Your task to perform on an android device: Add razer blade to the cart on walmart.com Image 0: 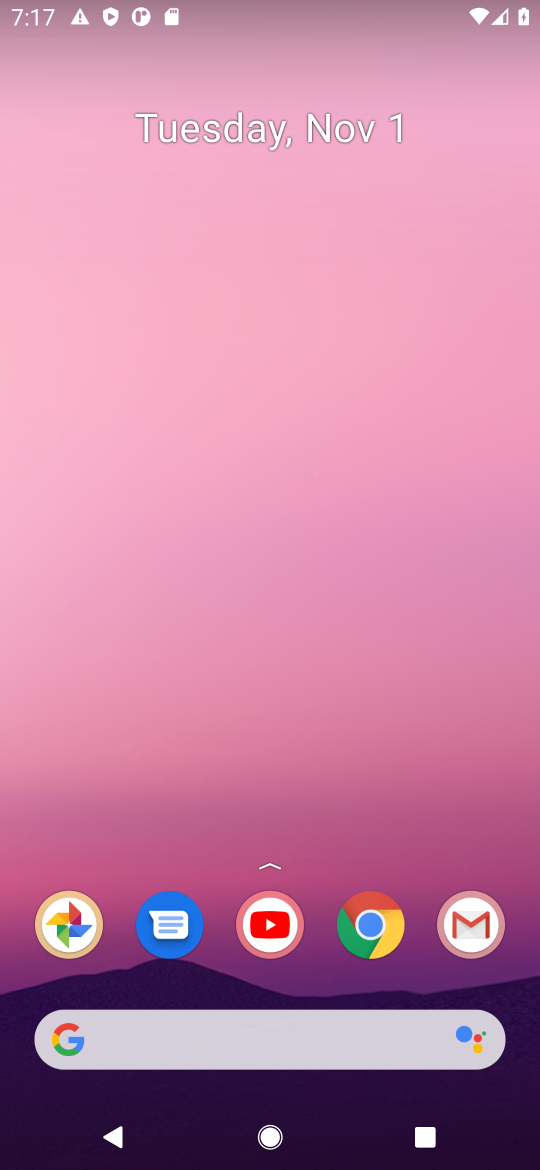
Step 0: press home button
Your task to perform on an android device: Add razer blade to the cart on walmart.com Image 1: 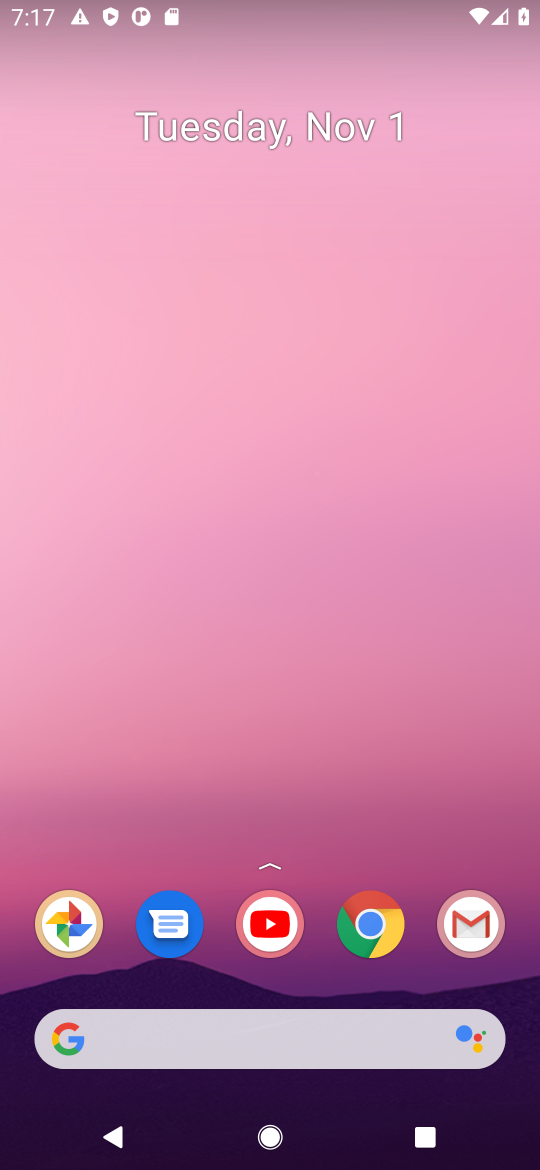
Step 1: click (110, 1028)
Your task to perform on an android device: Add razer blade to the cart on walmart.com Image 2: 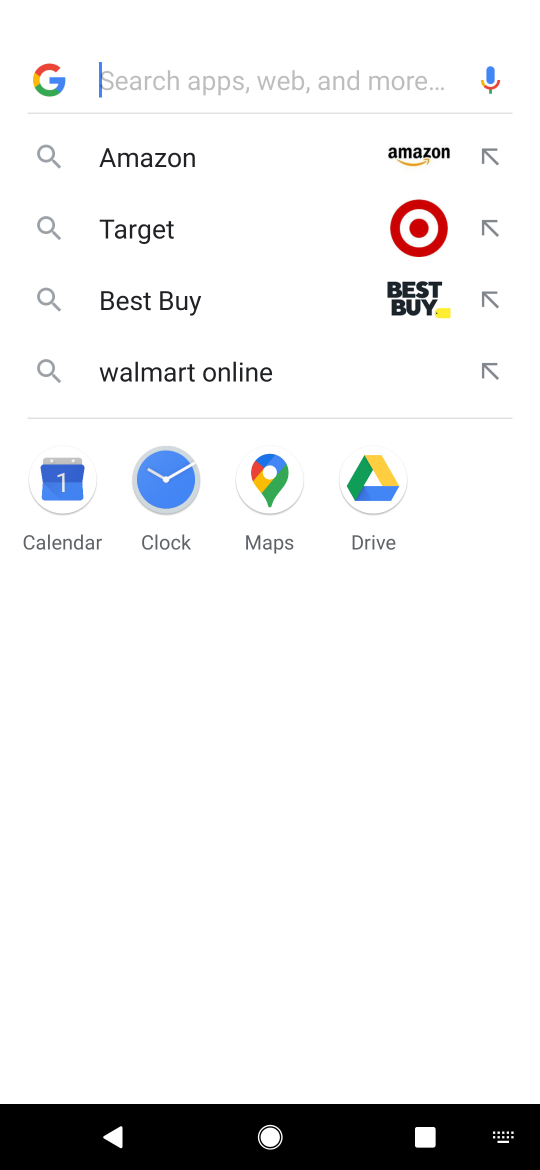
Step 2: click (172, 78)
Your task to perform on an android device: Add razer blade to the cart on walmart.com Image 3: 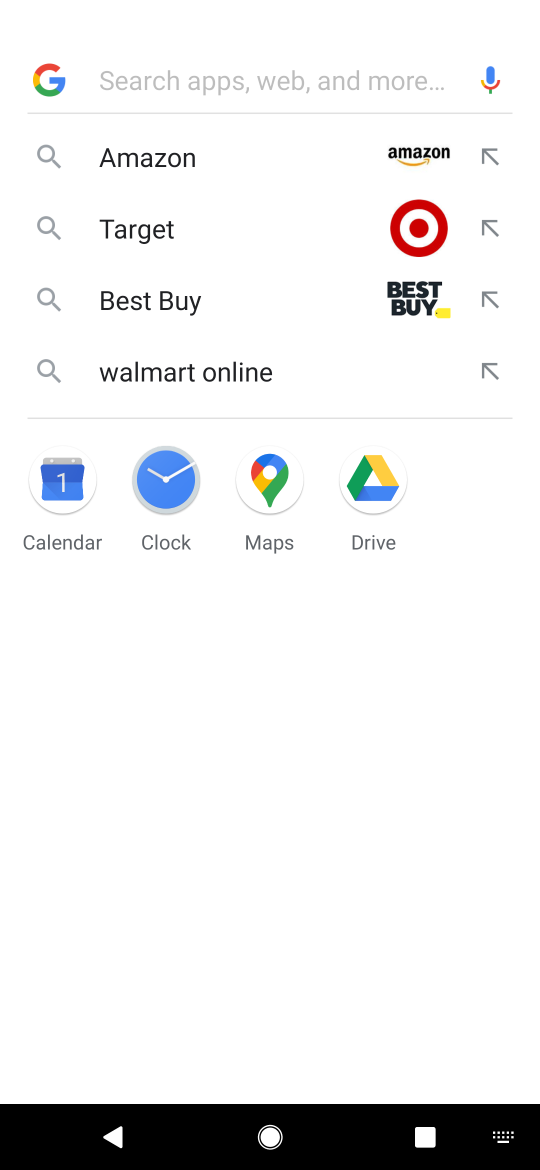
Step 3: press enter
Your task to perform on an android device: Add razer blade to the cart on walmart.com Image 4: 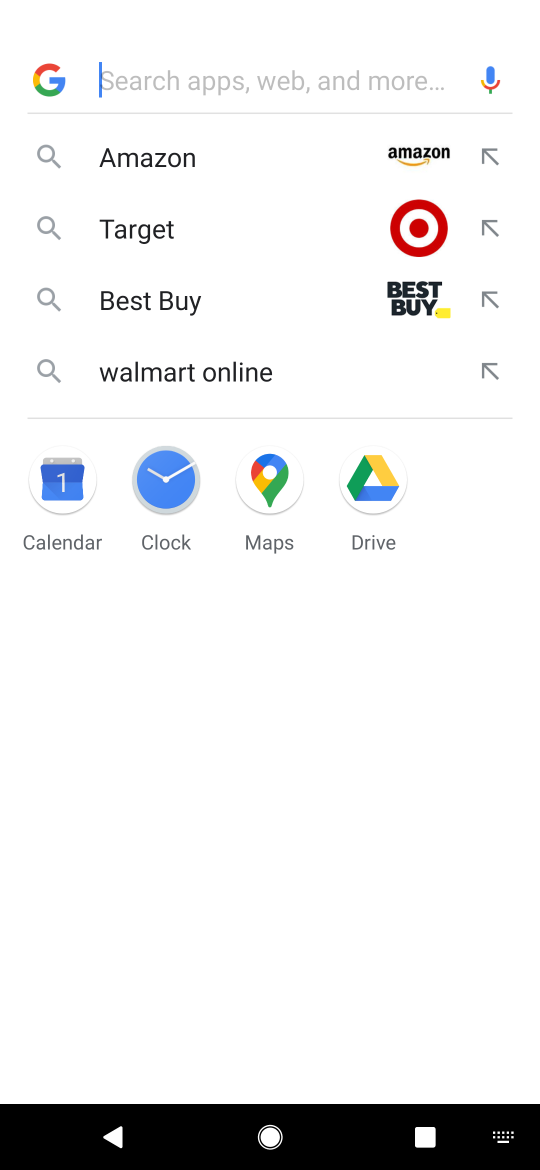
Step 4: type "walmart.com"
Your task to perform on an android device: Add razer blade to the cart on walmart.com Image 5: 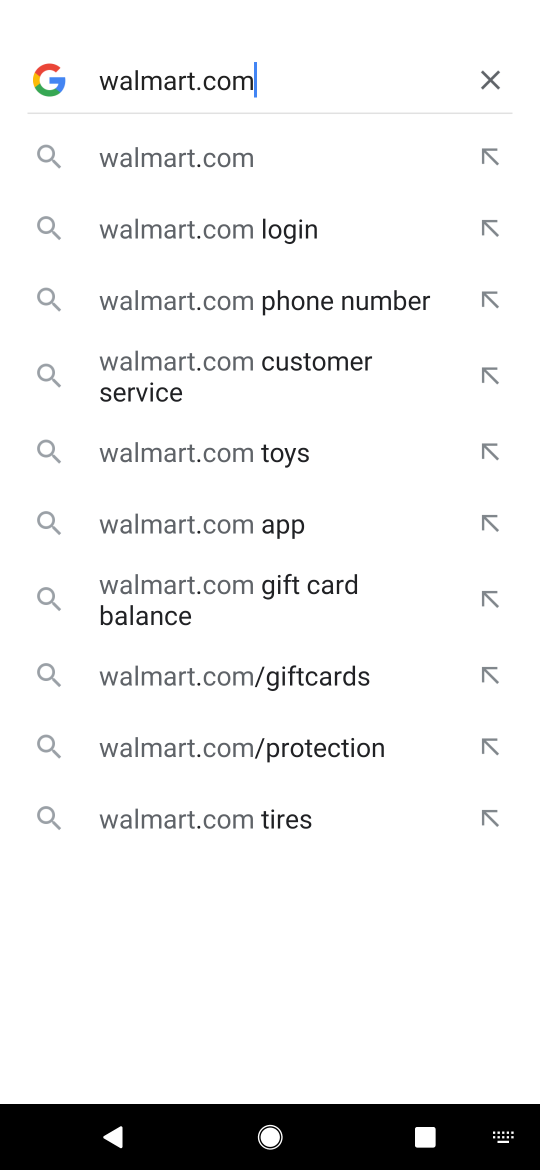
Step 5: press enter
Your task to perform on an android device: Add razer blade to the cart on walmart.com Image 6: 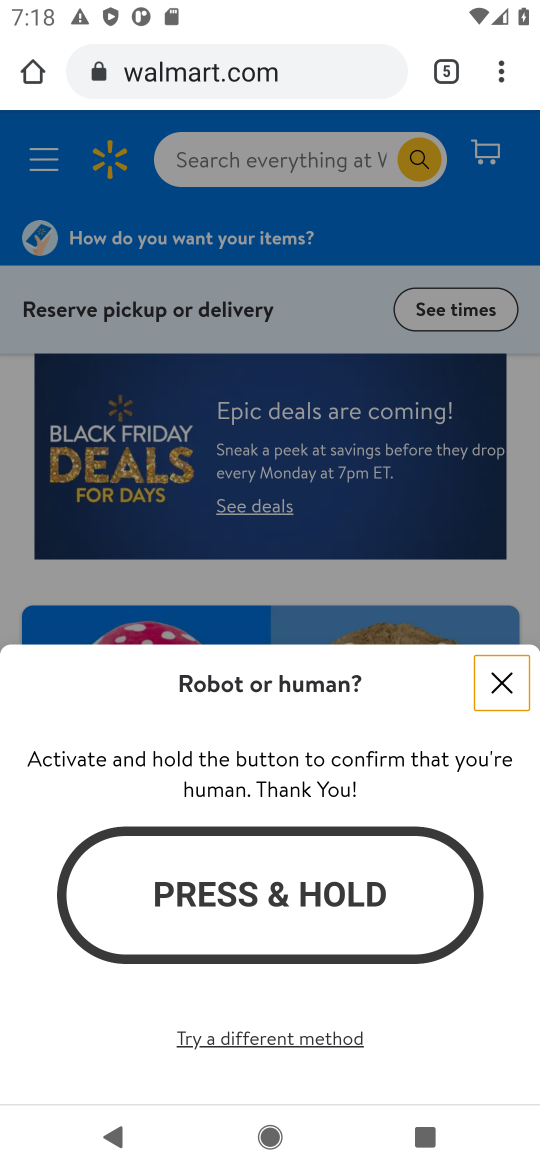
Step 6: click (274, 899)
Your task to perform on an android device: Add razer blade to the cart on walmart.com Image 7: 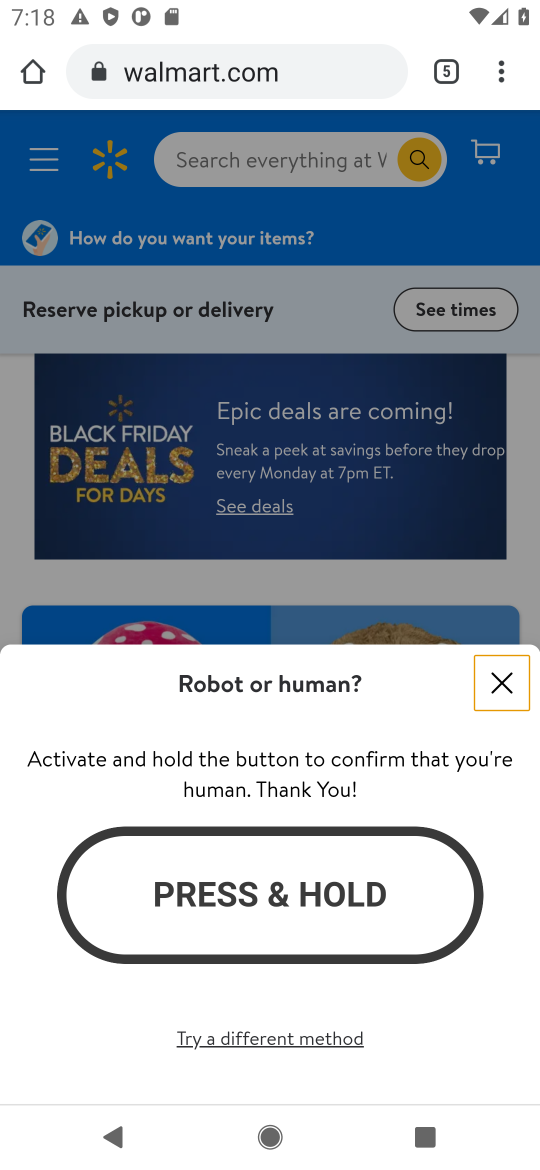
Step 7: click (274, 899)
Your task to perform on an android device: Add razer blade to the cart on walmart.com Image 8: 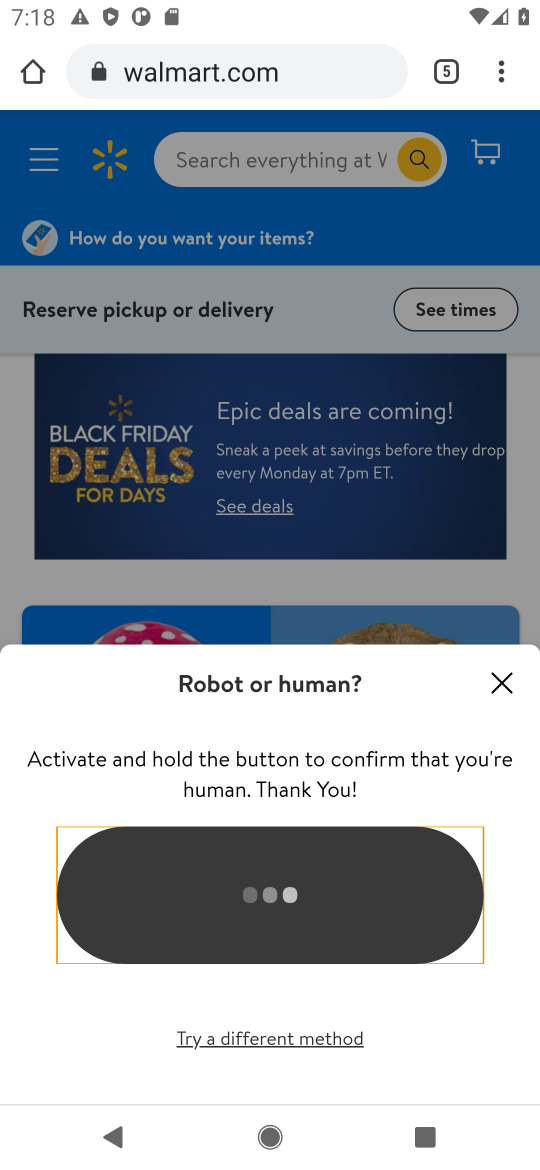
Step 8: click (303, 887)
Your task to perform on an android device: Add razer blade to the cart on walmart.com Image 9: 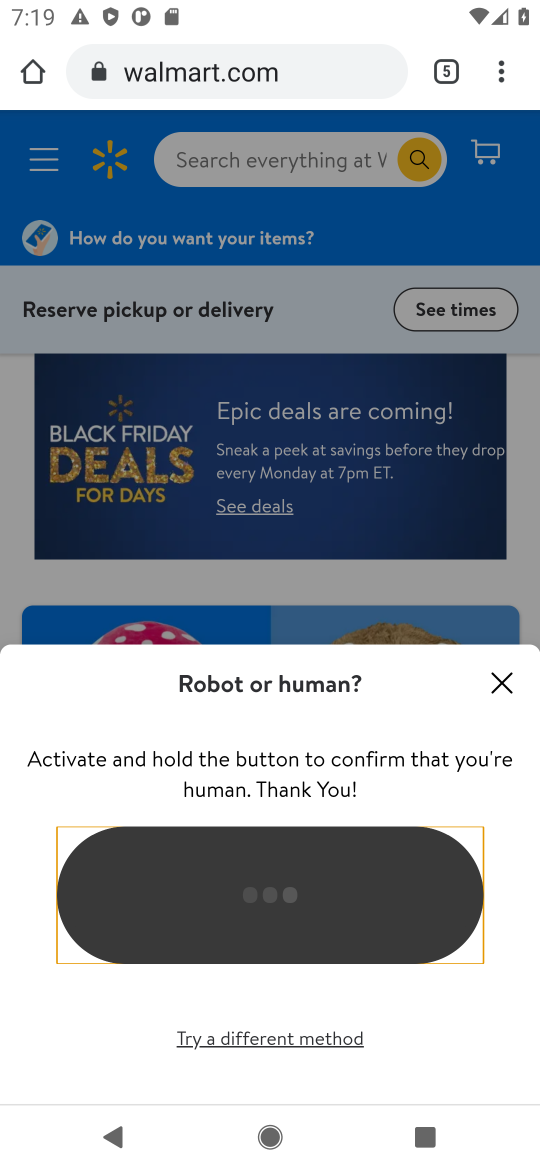
Step 9: click (504, 676)
Your task to perform on an android device: Add razer blade to the cart on walmart.com Image 10: 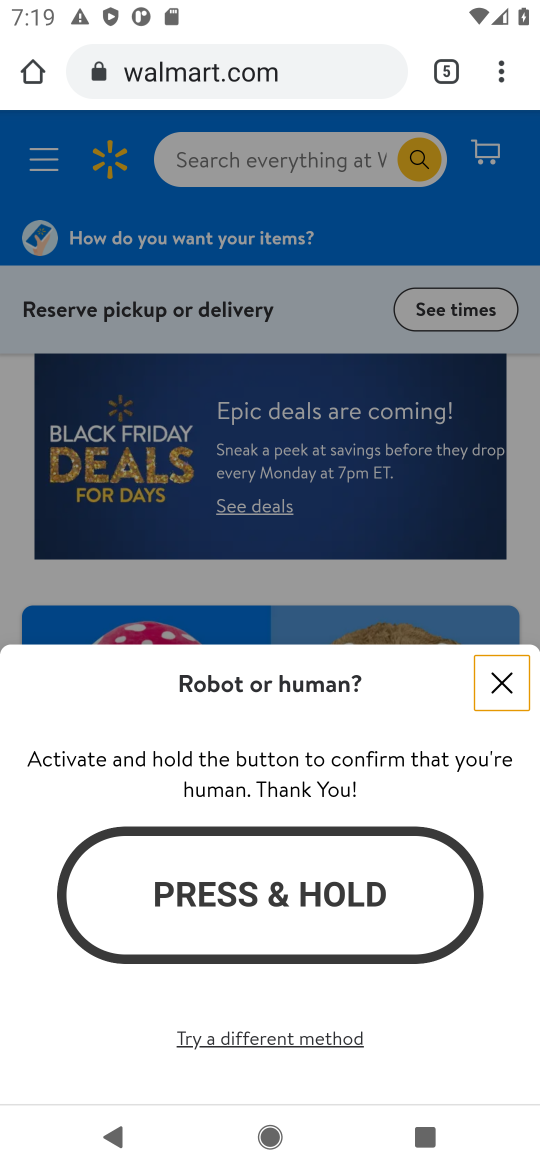
Step 10: click (219, 902)
Your task to perform on an android device: Add razer blade to the cart on walmart.com Image 11: 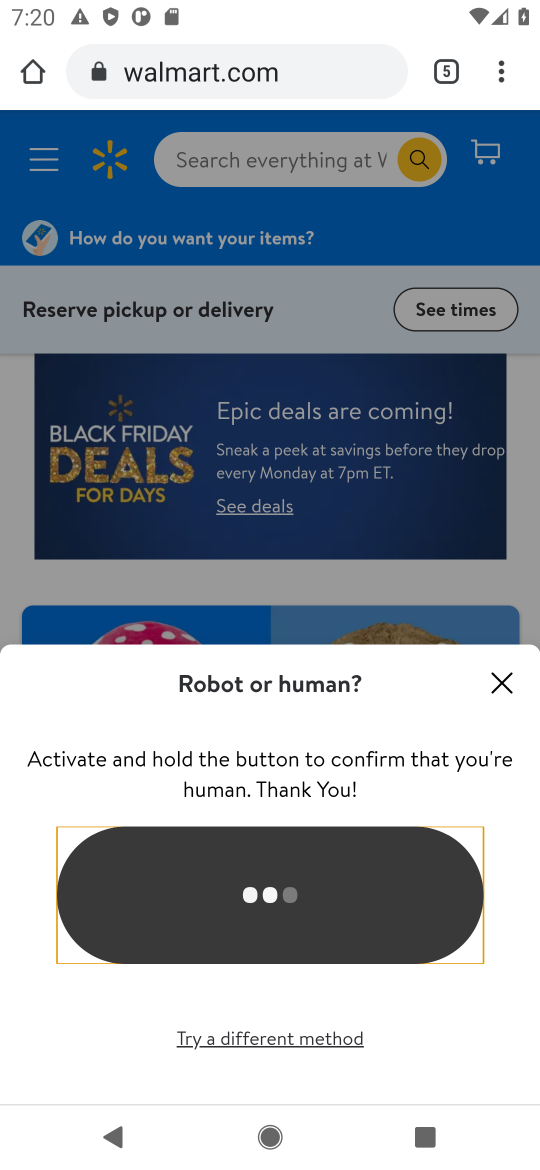
Step 11: task complete